Your task to perform on an android device: set an alarm Image 0: 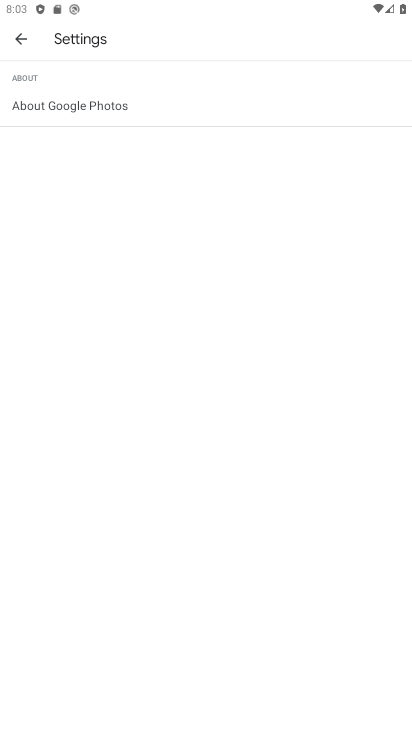
Step 0: press home button
Your task to perform on an android device: set an alarm Image 1: 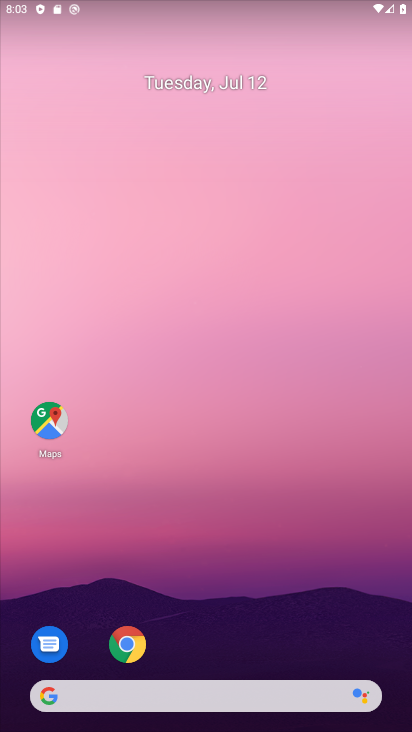
Step 1: drag from (128, 436) to (289, 5)
Your task to perform on an android device: set an alarm Image 2: 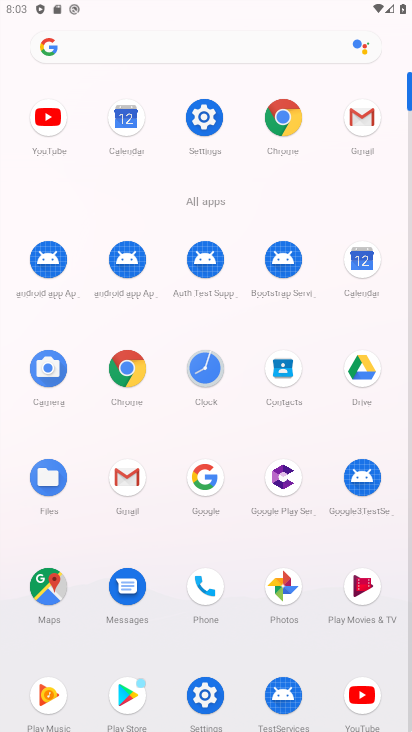
Step 2: click (203, 381)
Your task to perform on an android device: set an alarm Image 3: 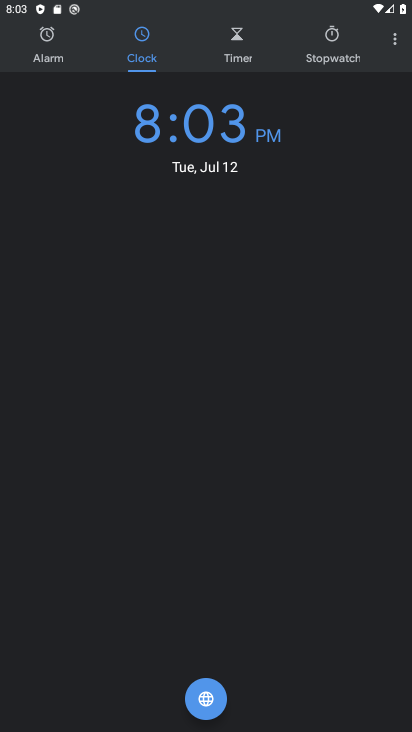
Step 3: click (43, 46)
Your task to perform on an android device: set an alarm Image 4: 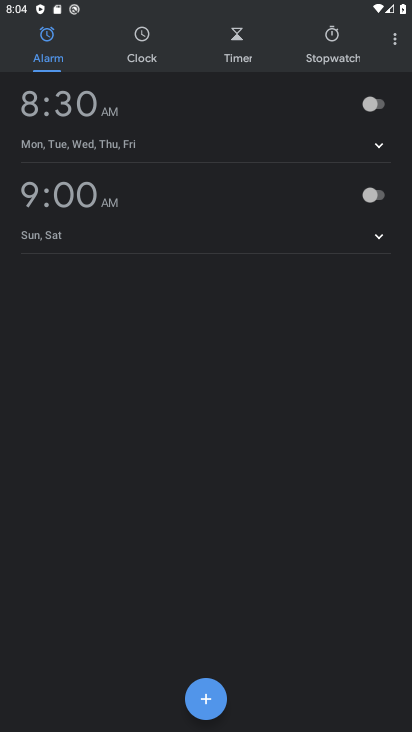
Step 4: click (369, 93)
Your task to perform on an android device: set an alarm Image 5: 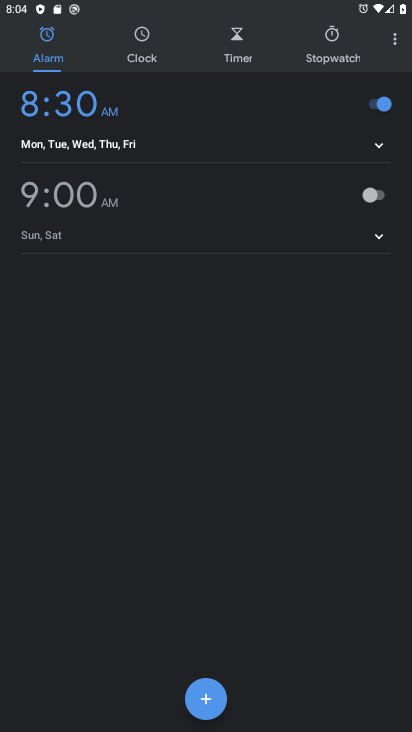
Step 5: task complete